Your task to perform on an android device: Open location settings Image 0: 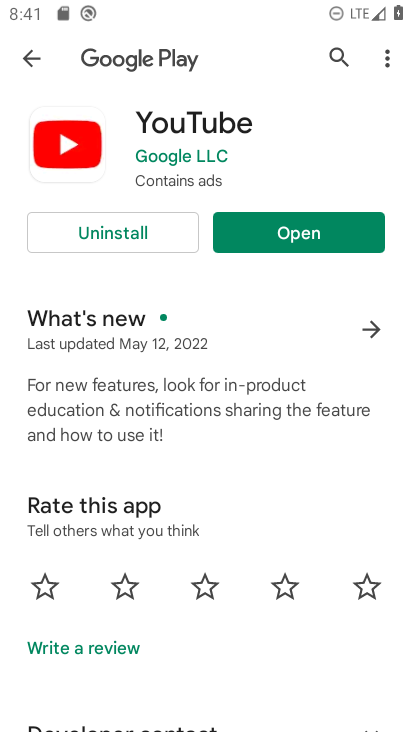
Step 0: press home button
Your task to perform on an android device: Open location settings Image 1: 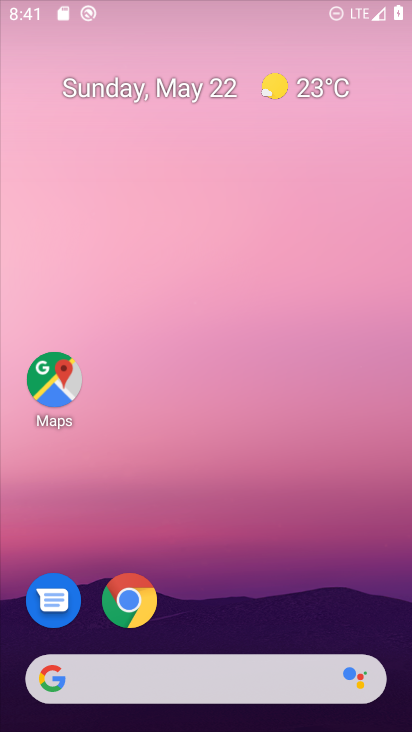
Step 1: drag from (378, 617) to (229, 22)
Your task to perform on an android device: Open location settings Image 2: 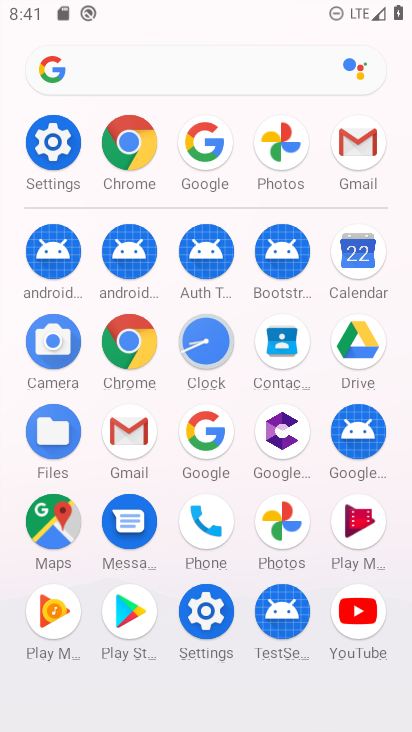
Step 2: click (218, 625)
Your task to perform on an android device: Open location settings Image 3: 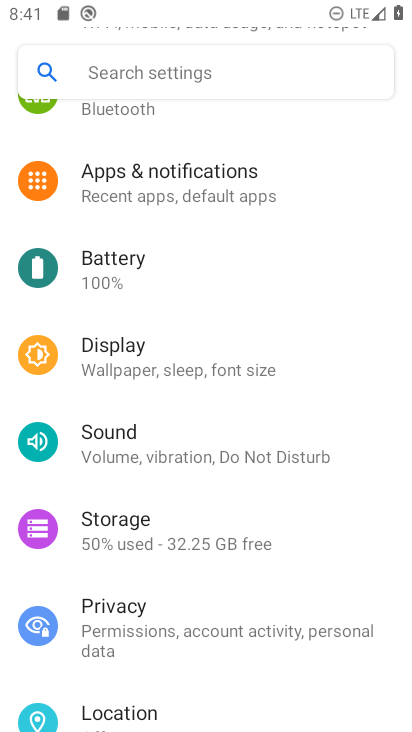
Step 3: click (133, 707)
Your task to perform on an android device: Open location settings Image 4: 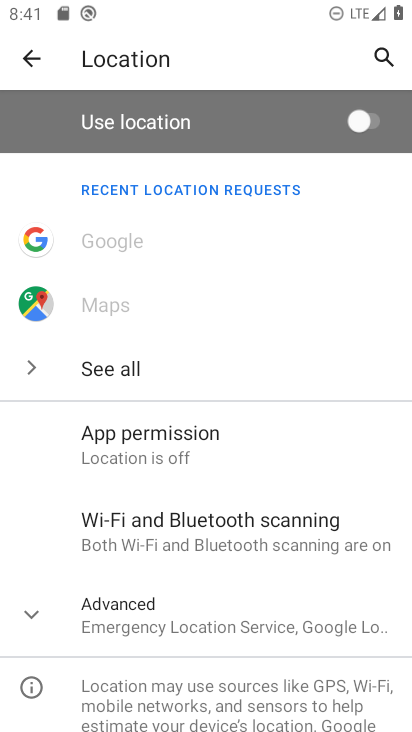
Step 4: task complete